Your task to perform on an android device: open app "Venmo" (install if not already installed) Image 0: 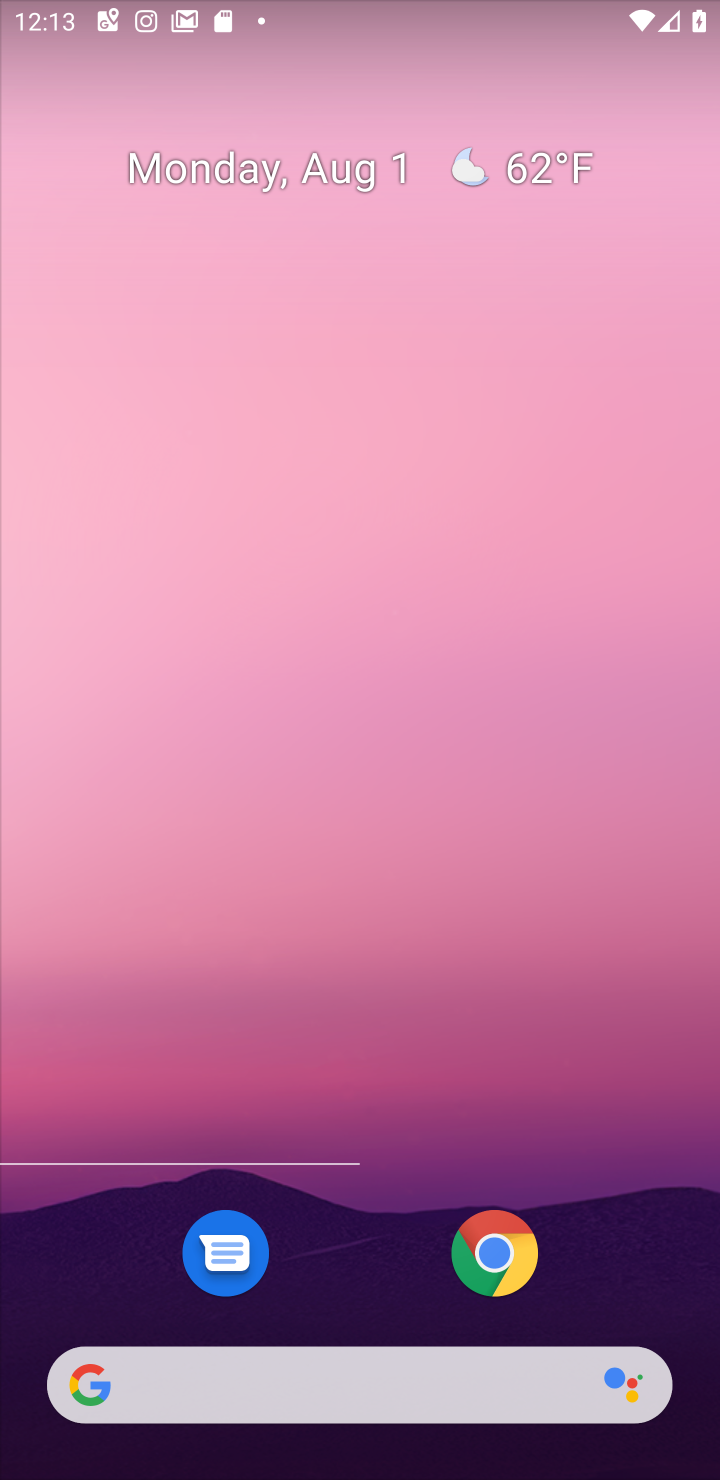
Step 0: press home button
Your task to perform on an android device: open app "Venmo" (install if not already installed) Image 1: 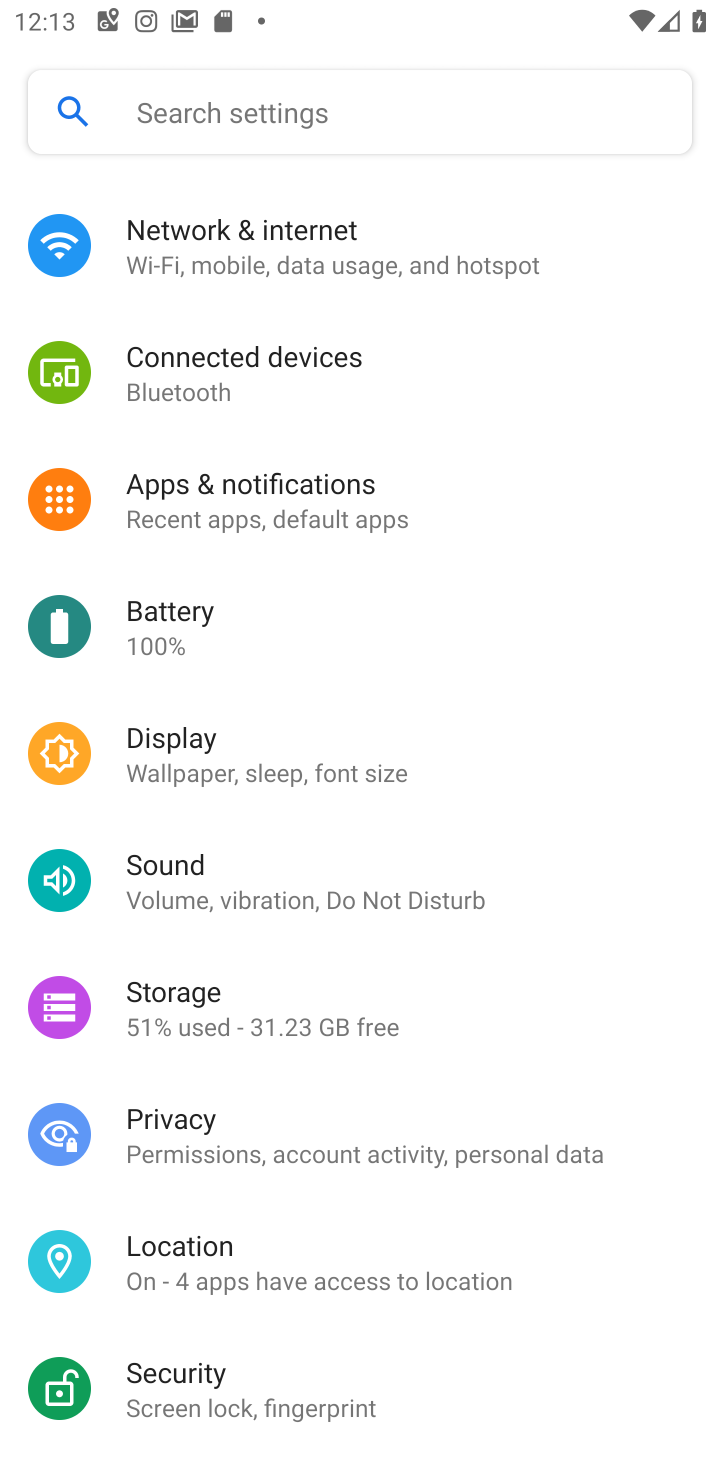
Step 1: press home button
Your task to perform on an android device: open app "Venmo" (install if not already installed) Image 2: 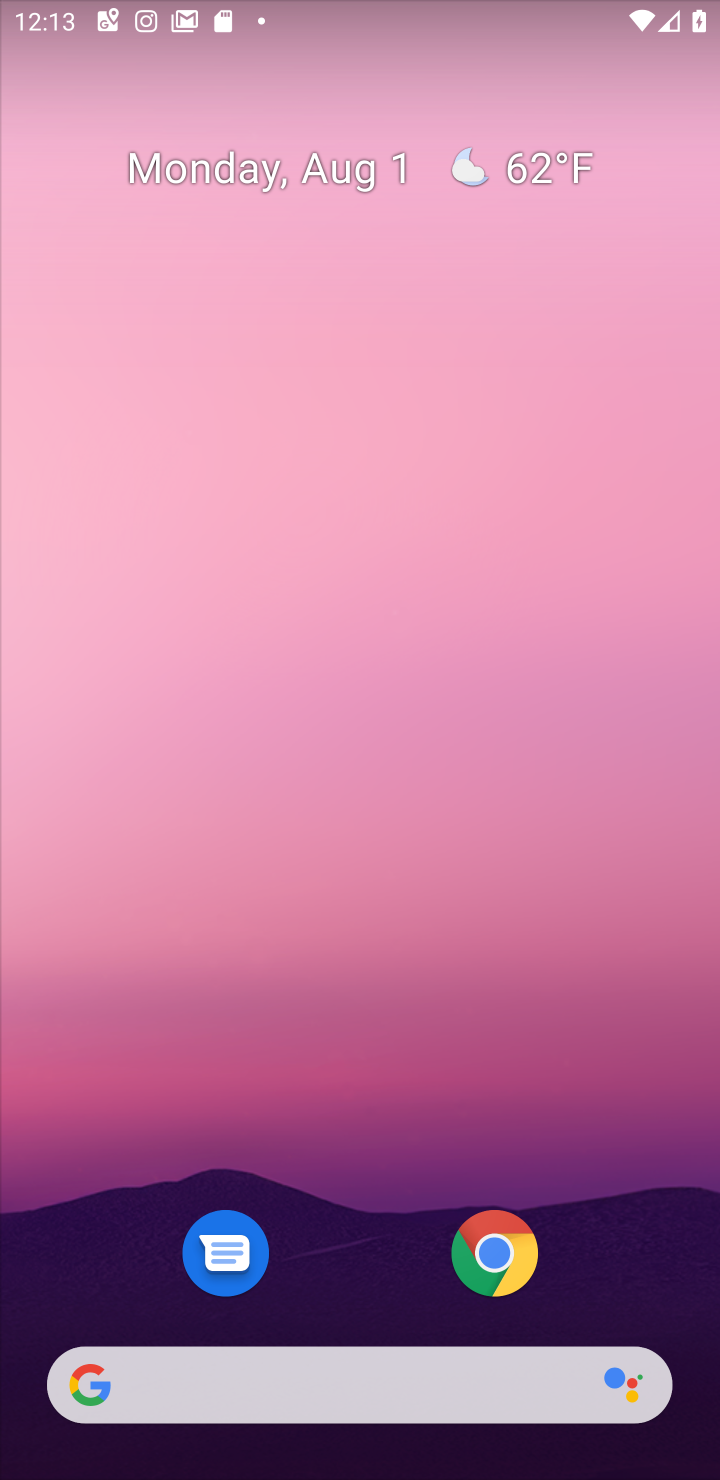
Step 2: press home button
Your task to perform on an android device: open app "Venmo" (install if not already installed) Image 3: 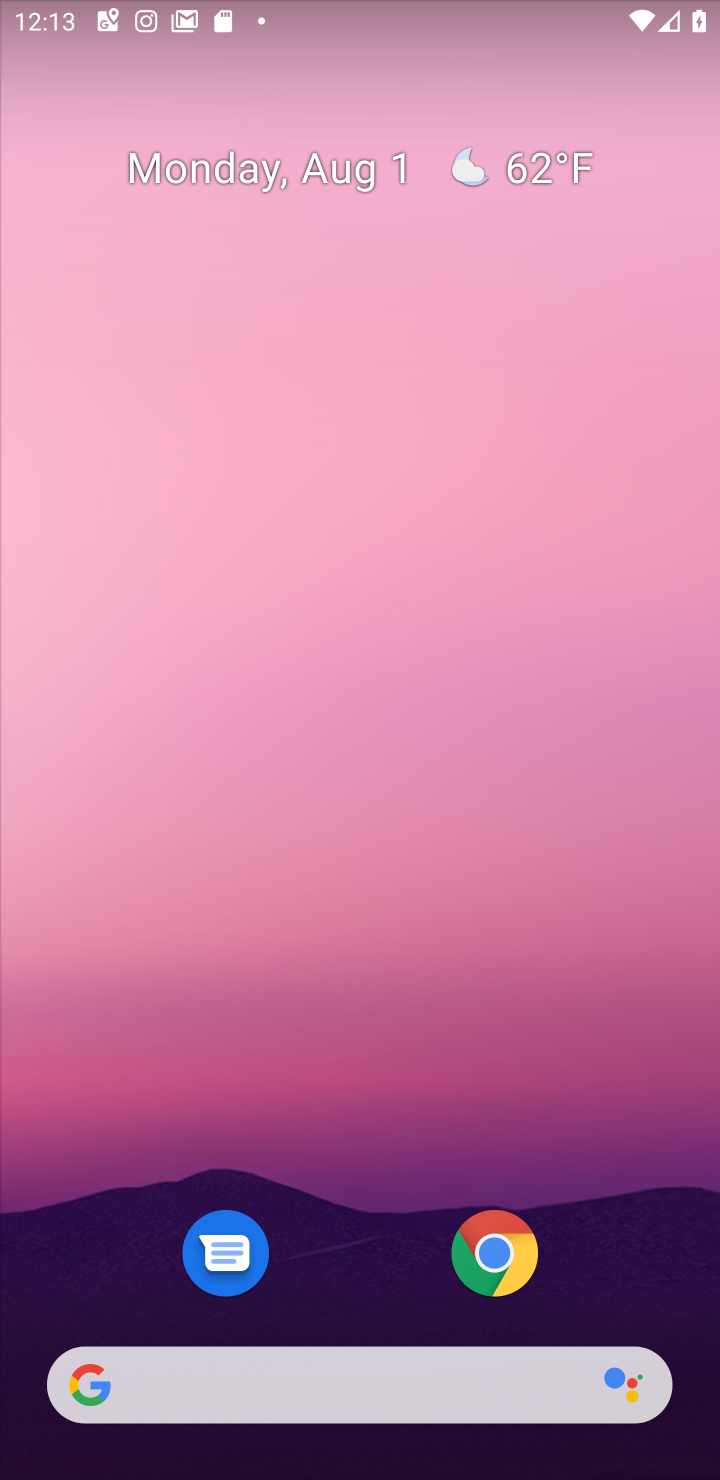
Step 3: drag from (380, 1193) to (516, 299)
Your task to perform on an android device: open app "Venmo" (install if not already installed) Image 4: 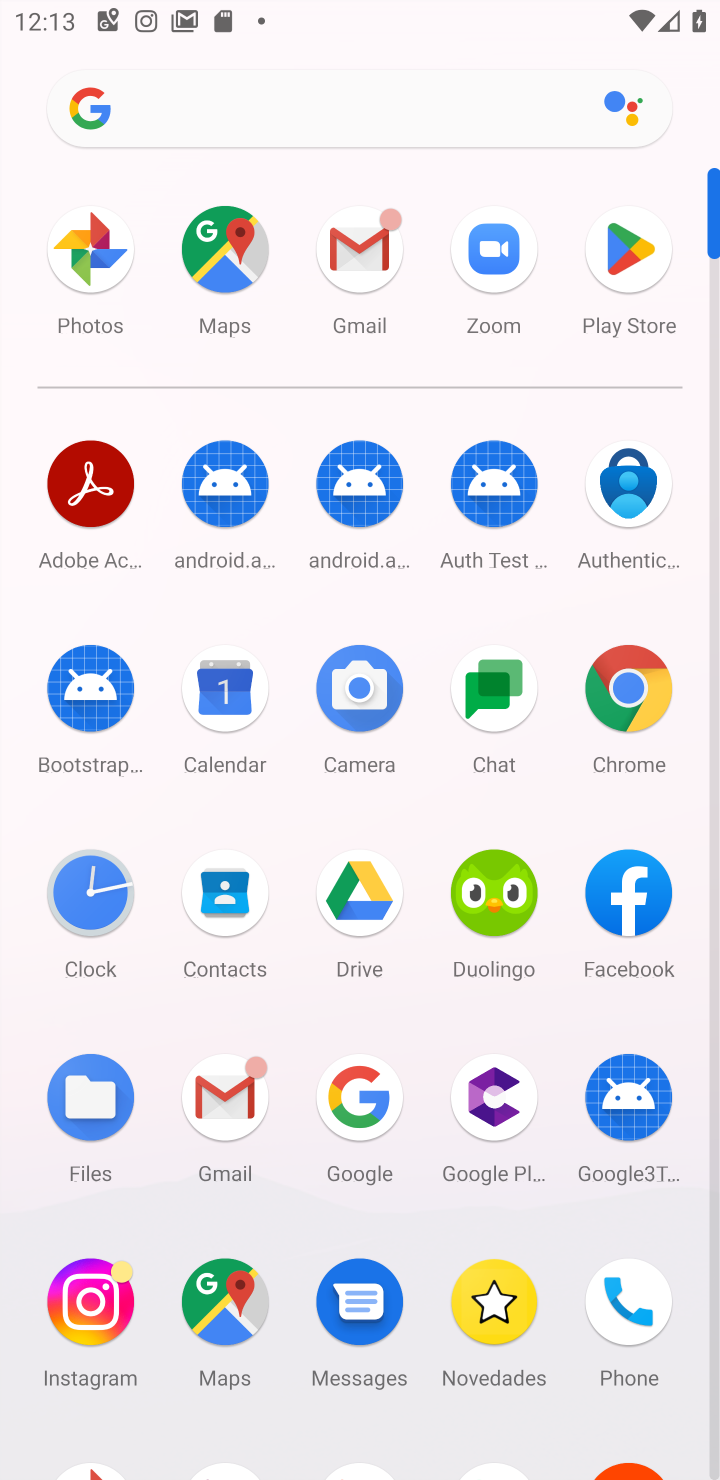
Step 4: click (639, 276)
Your task to perform on an android device: open app "Venmo" (install if not already installed) Image 5: 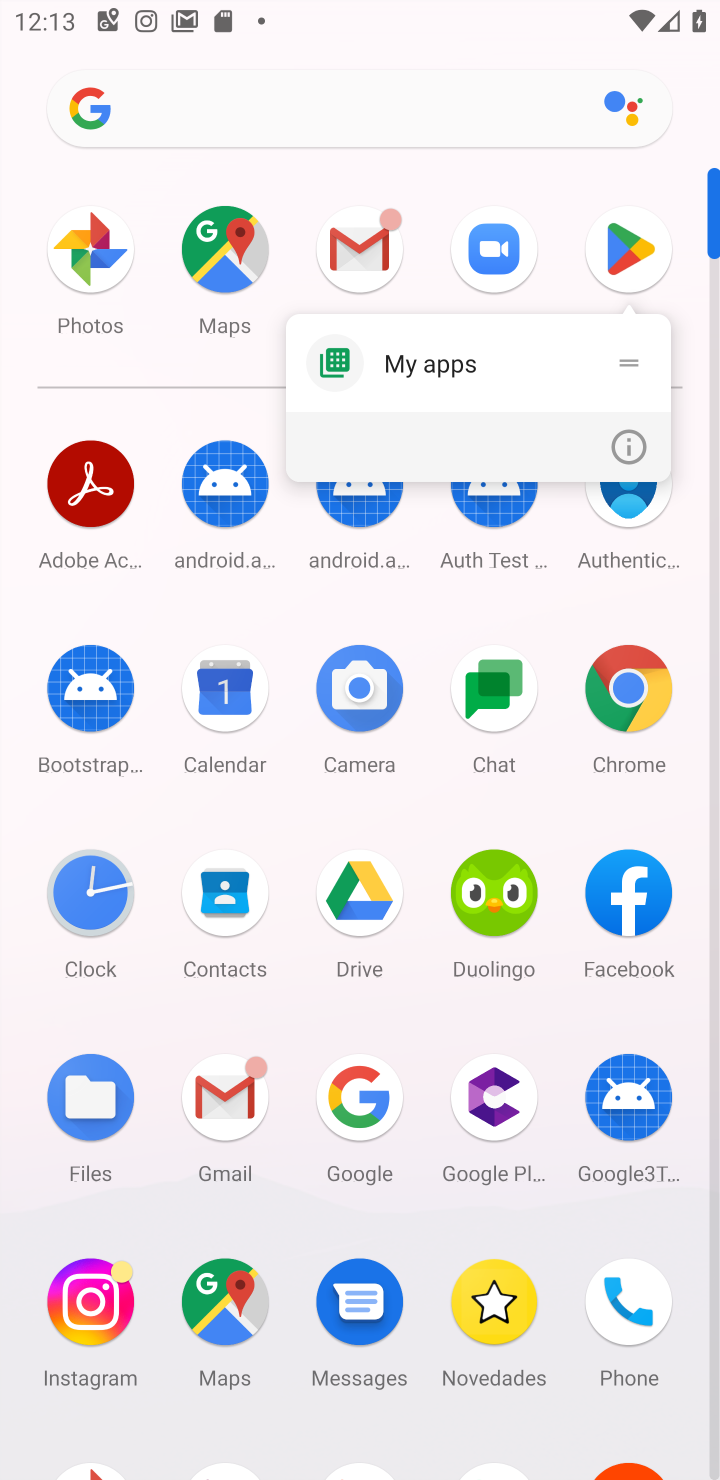
Step 5: click (617, 249)
Your task to perform on an android device: open app "Venmo" (install if not already installed) Image 6: 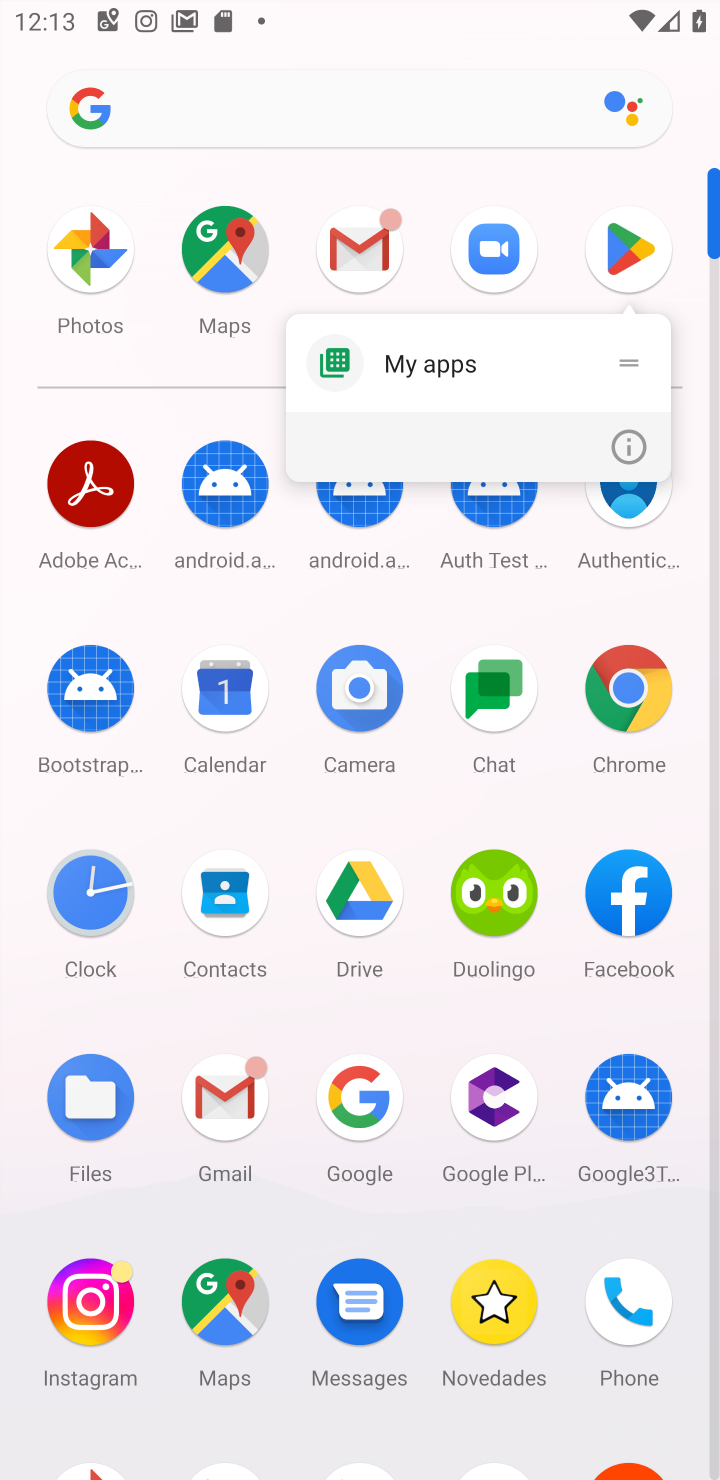
Step 6: click (617, 249)
Your task to perform on an android device: open app "Venmo" (install if not already installed) Image 7: 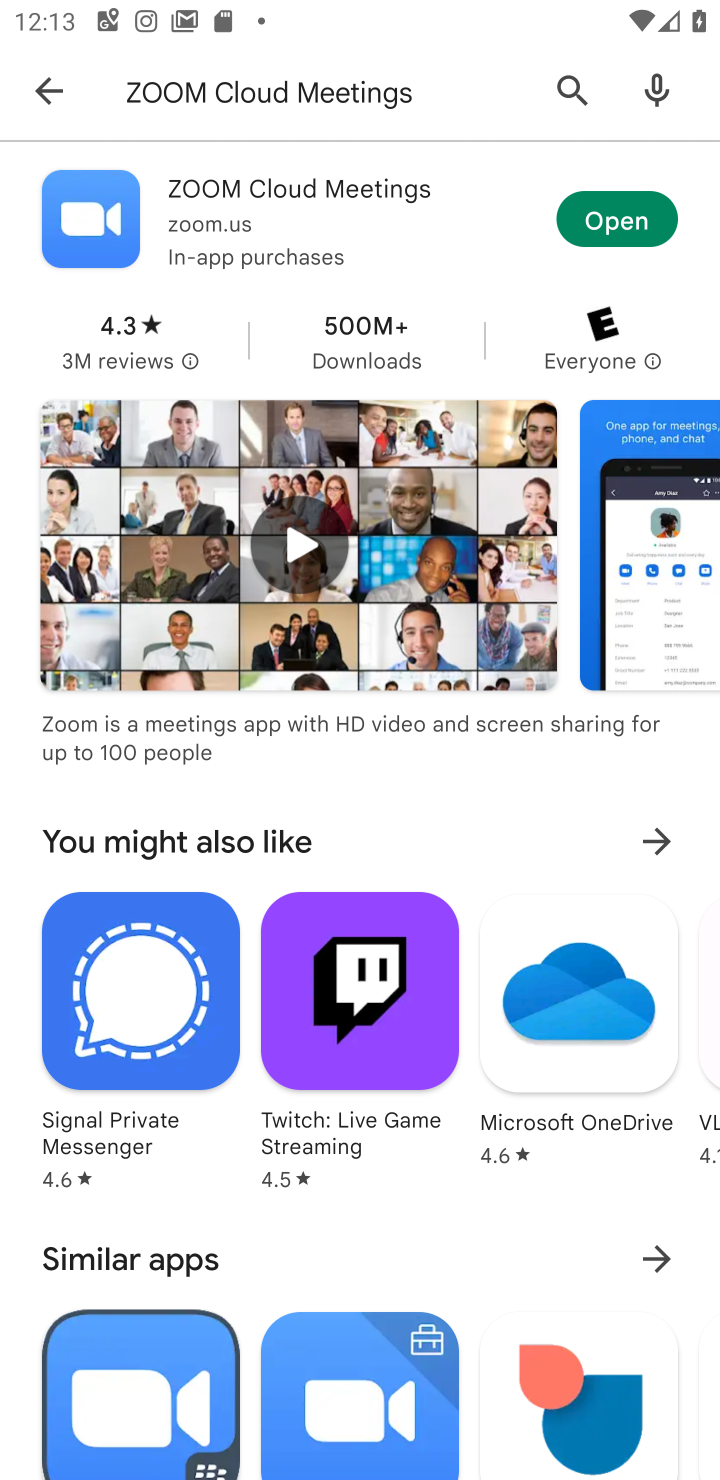
Step 7: click (390, 95)
Your task to perform on an android device: open app "Venmo" (install if not already installed) Image 8: 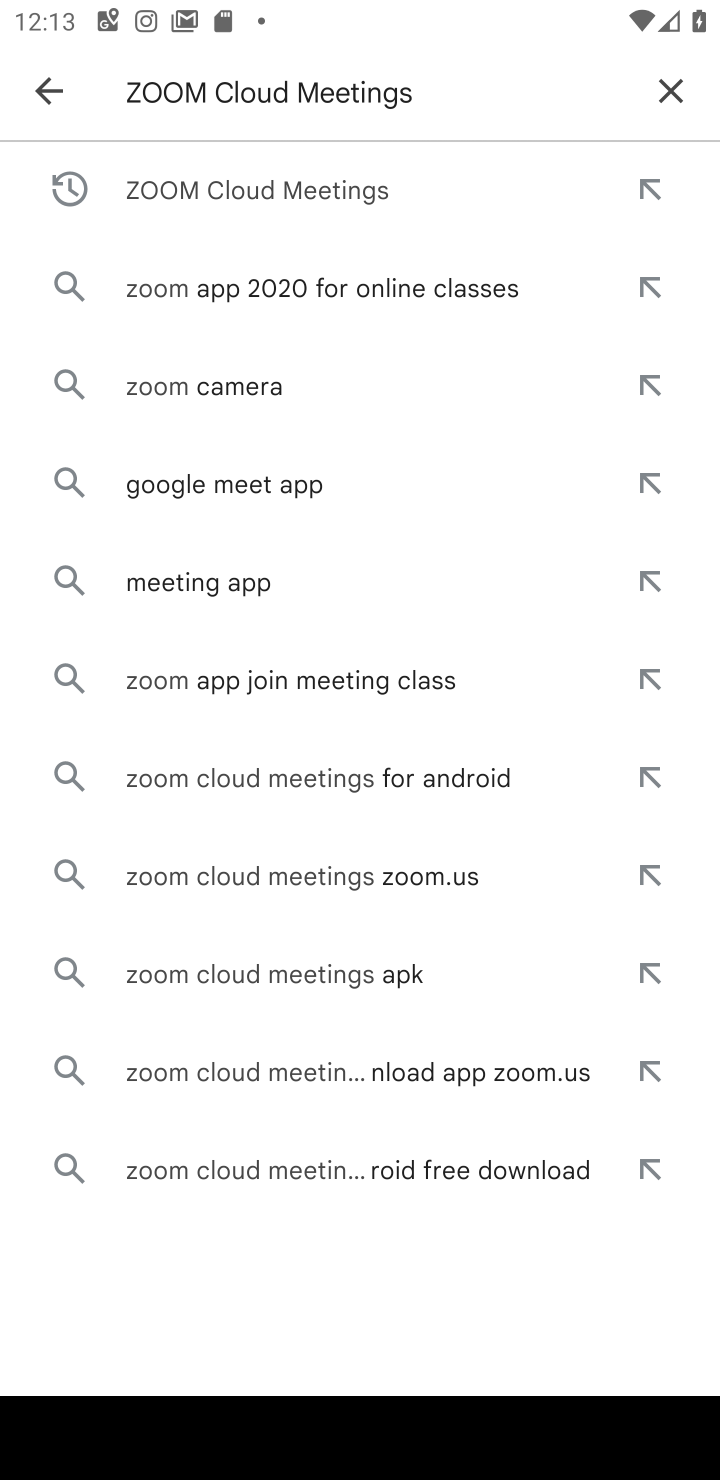
Step 8: click (671, 89)
Your task to perform on an android device: open app "Venmo" (install if not already installed) Image 9: 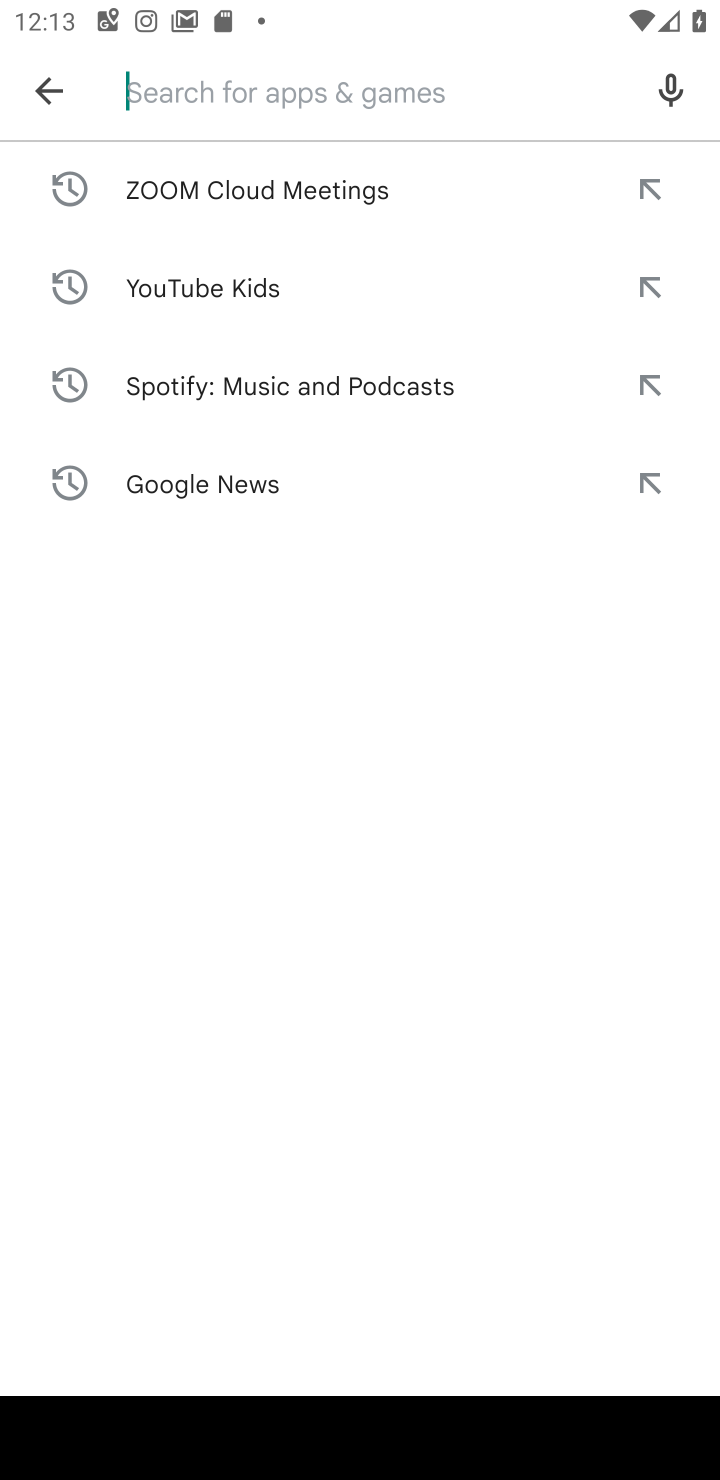
Step 9: type "Venmo"
Your task to perform on an android device: open app "Venmo" (install if not already installed) Image 10: 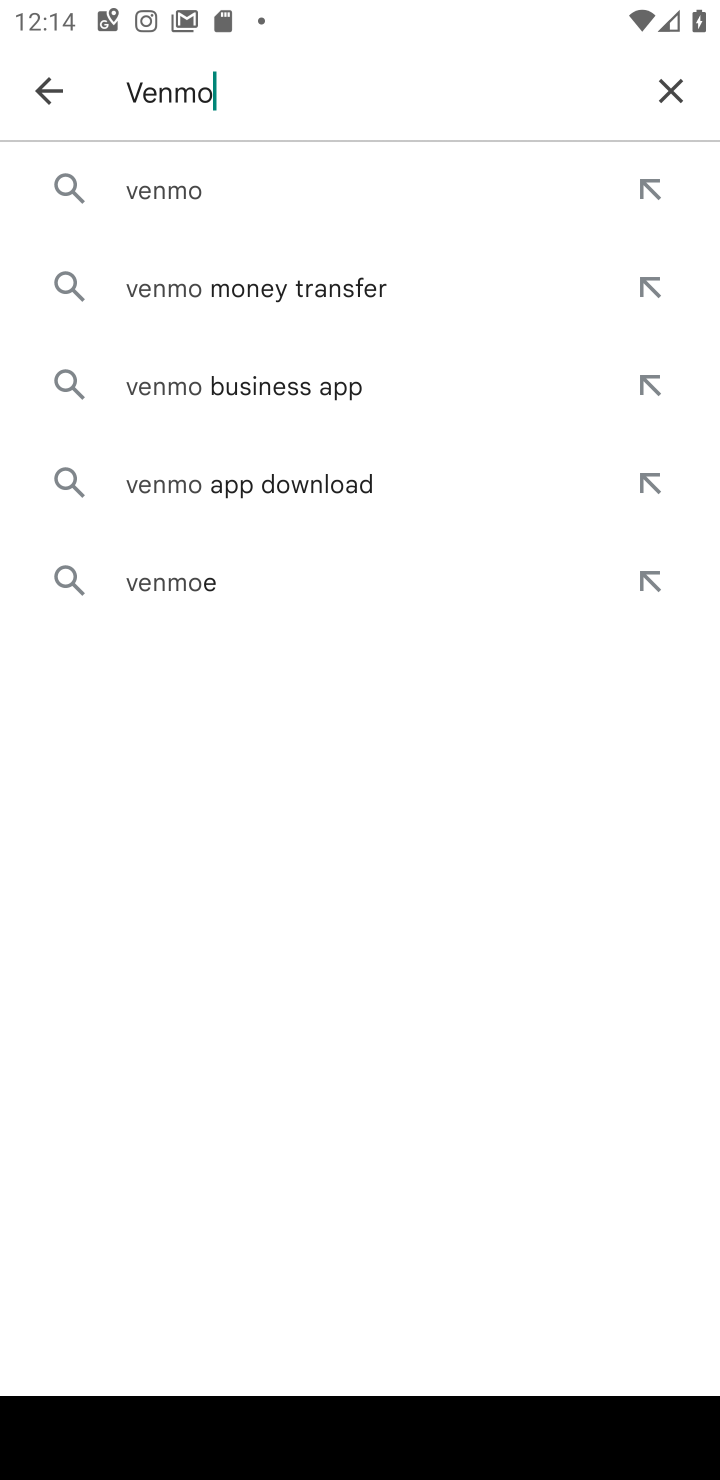
Step 10: press enter
Your task to perform on an android device: open app "Venmo" (install if not already installed) Image 11: 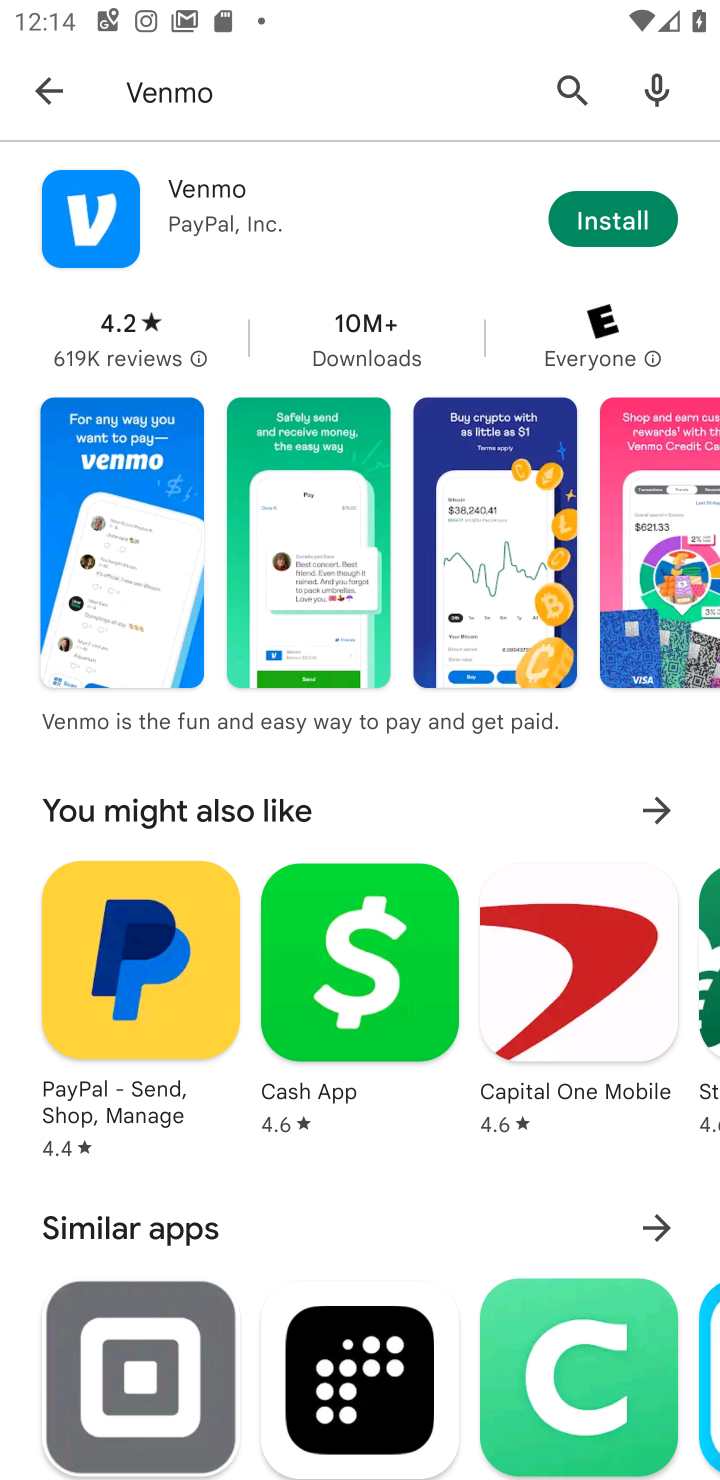
Step 11: click (594, 229)
Your task to perform on an android device: open app "Venmo" (install if not already installed) Image 12: 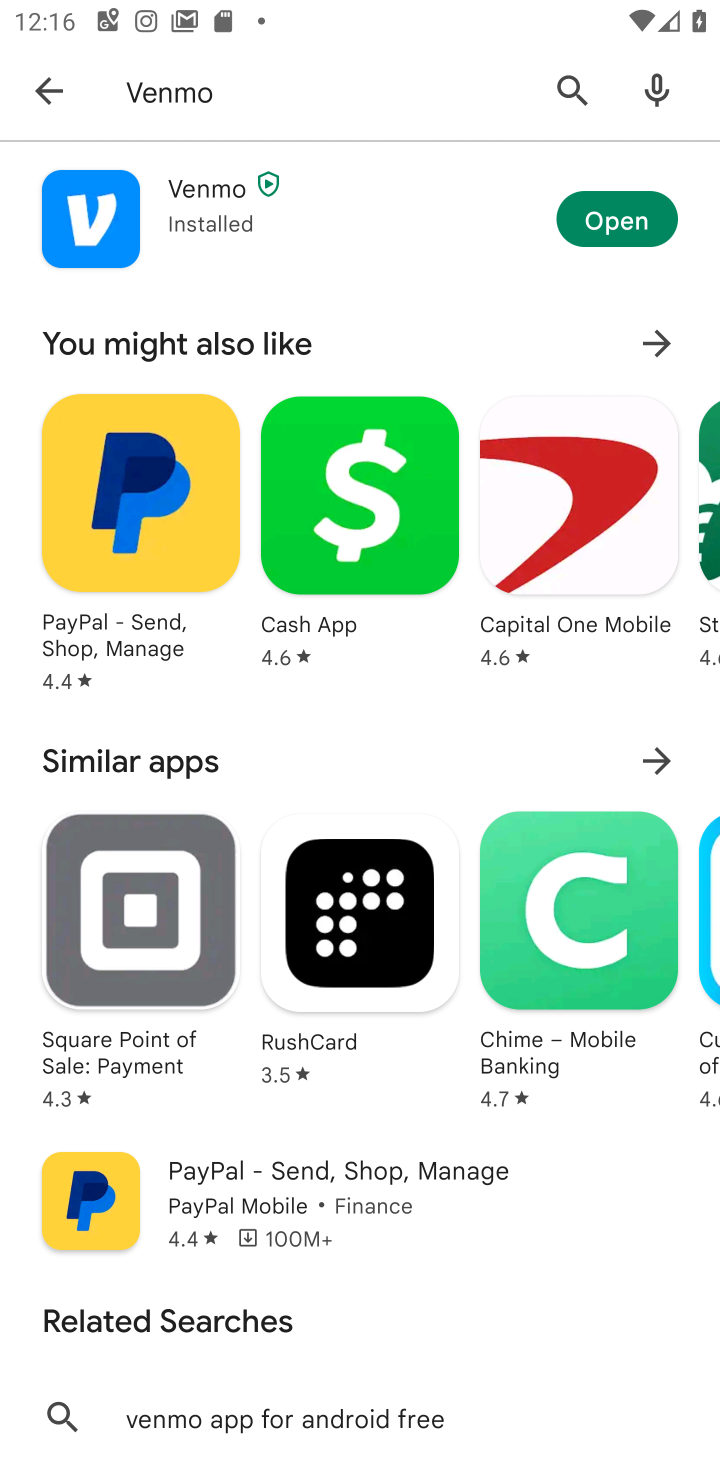
Step 12: task complete